Your task to perform on an android device: Open ESPN.com Image 0: 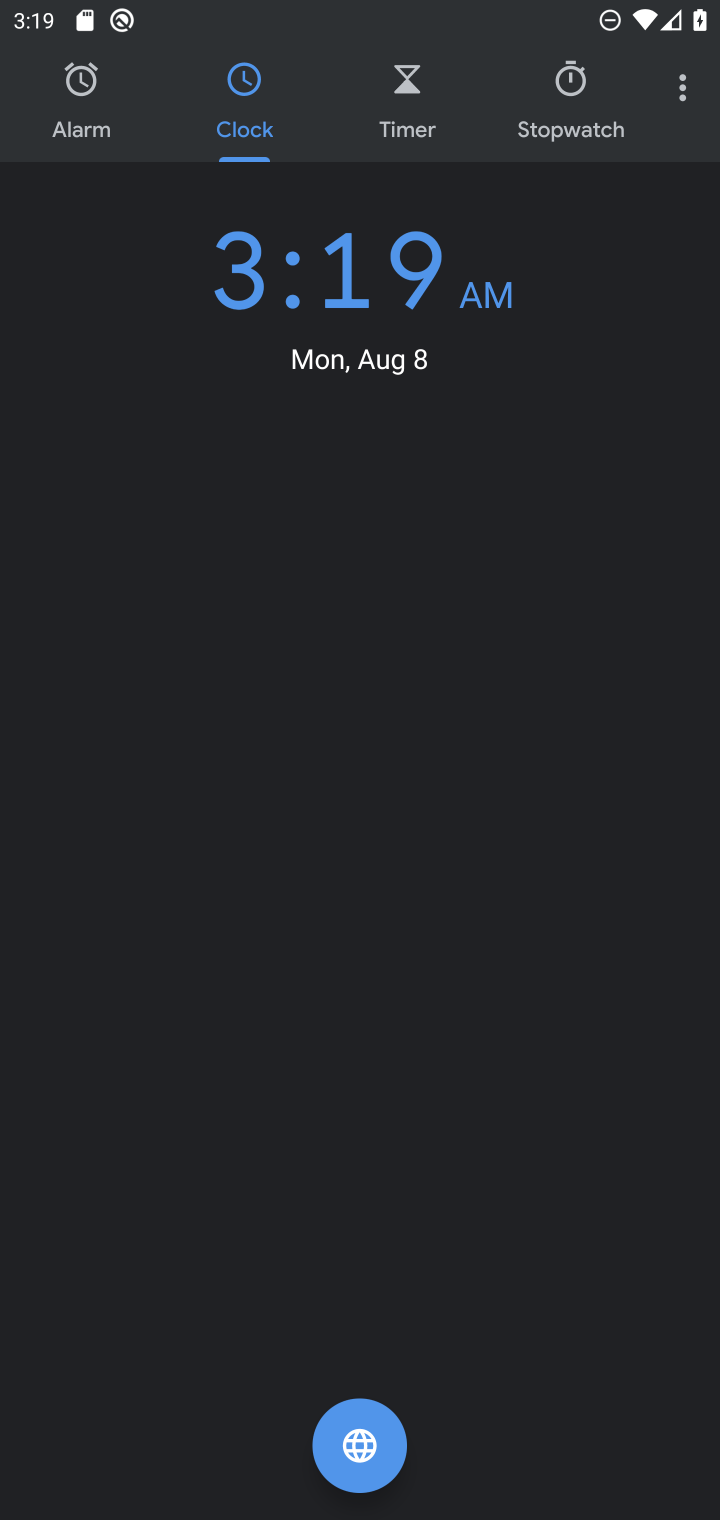
Step 0: press home button
Your task to perform on an android device: Open ESPN.com Image 1: 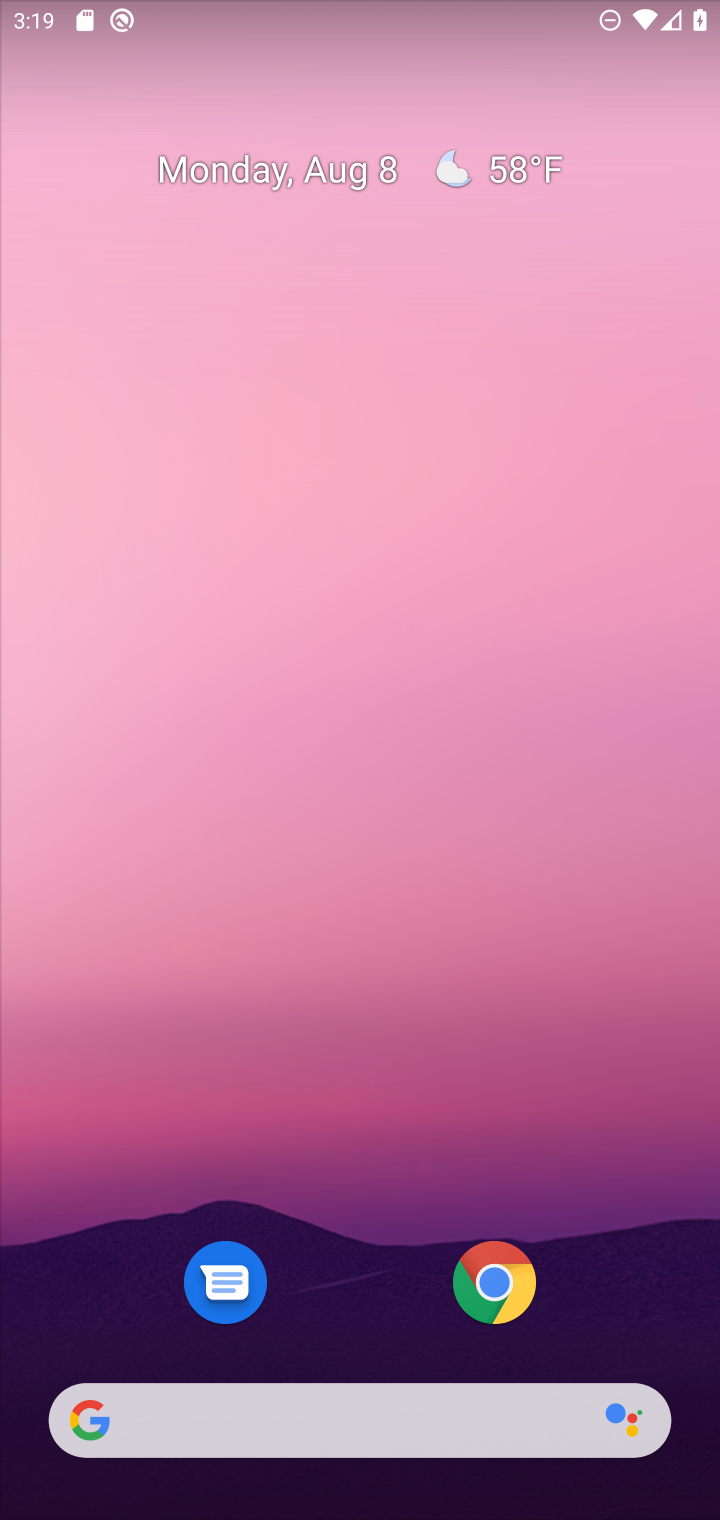
Step 1: drag from (446, 1023) to (710, 231)
Your task to perform on an android device: Open ESPN.com Image 2: 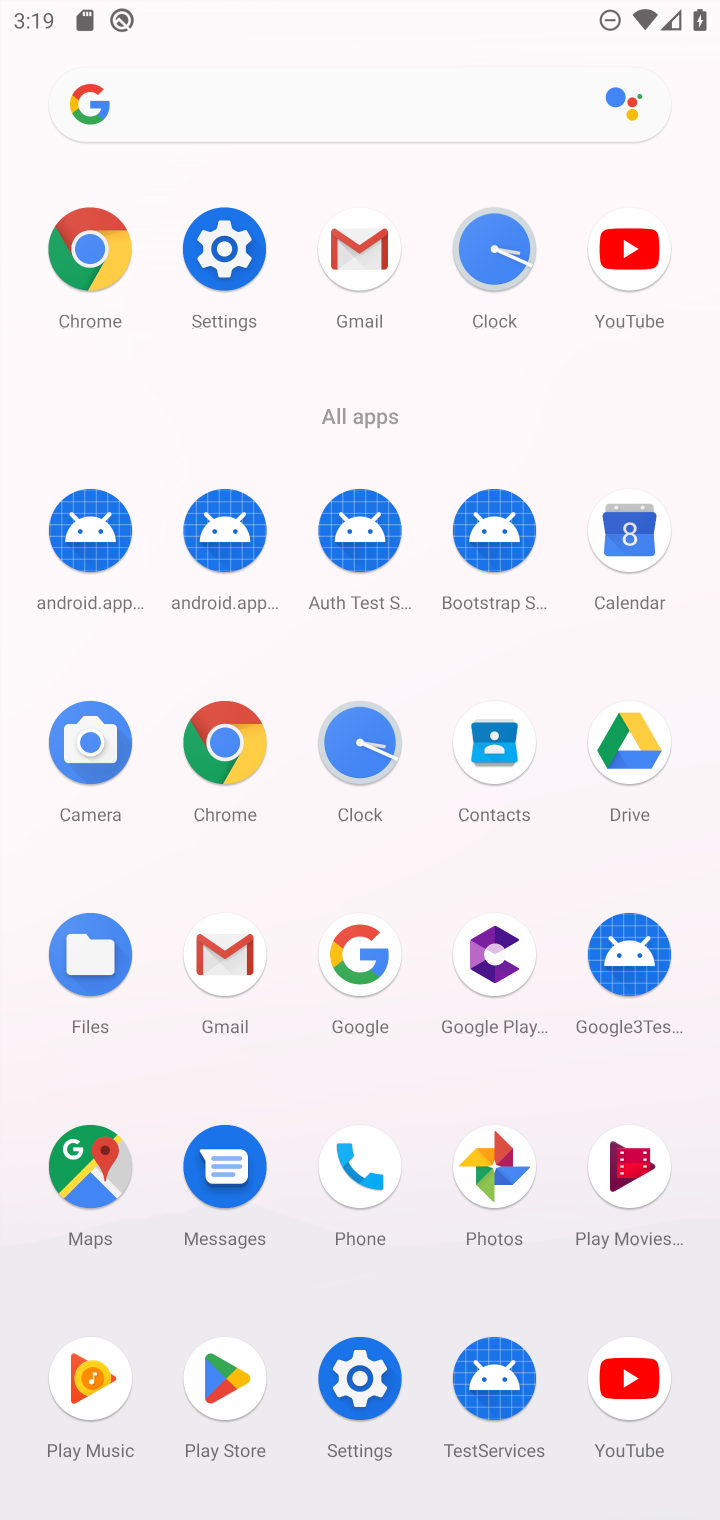
Step 2: click (224, 740)
Your task to perform on an android device: Open ESPN.com Image 3: 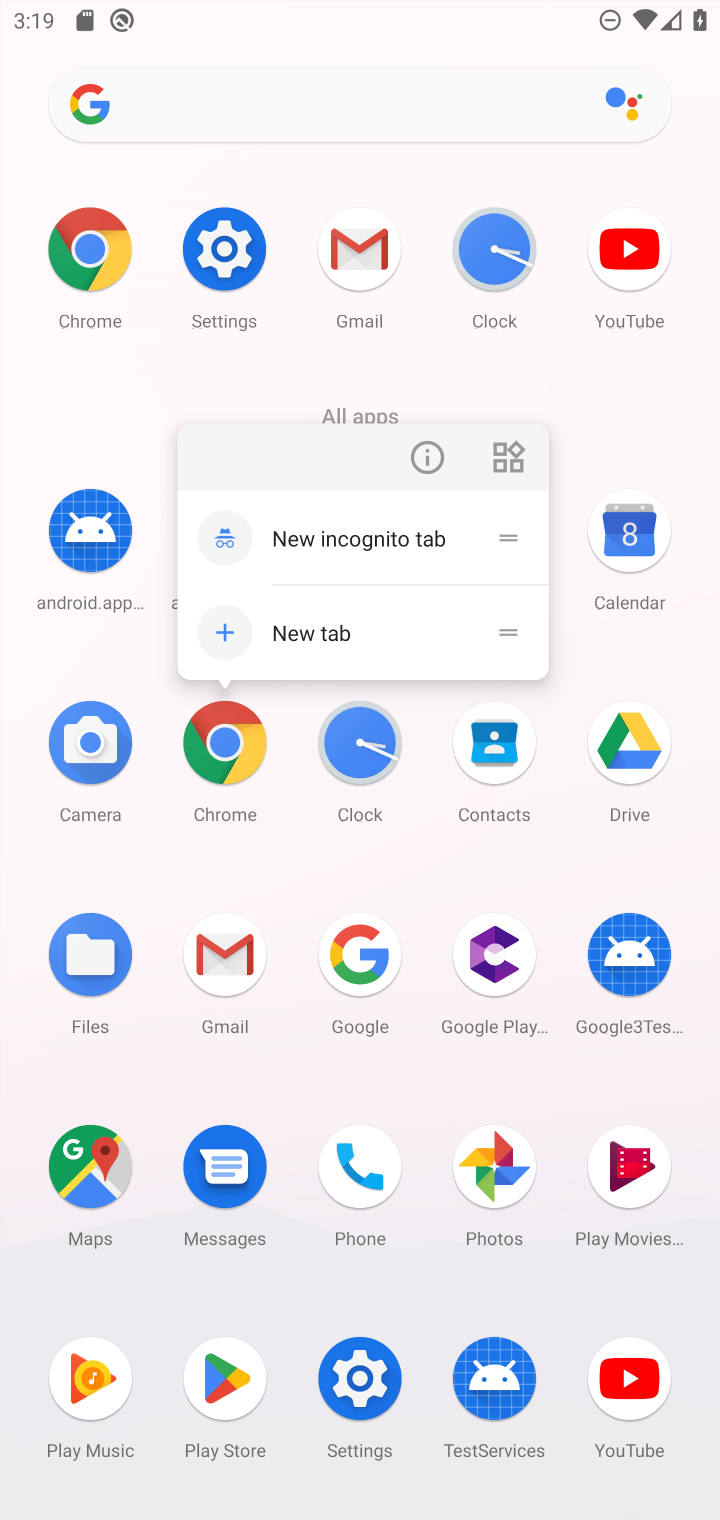
Step 3: click (221, 729)
Your task to perform on an android device: Open ESPN.com Image 4: 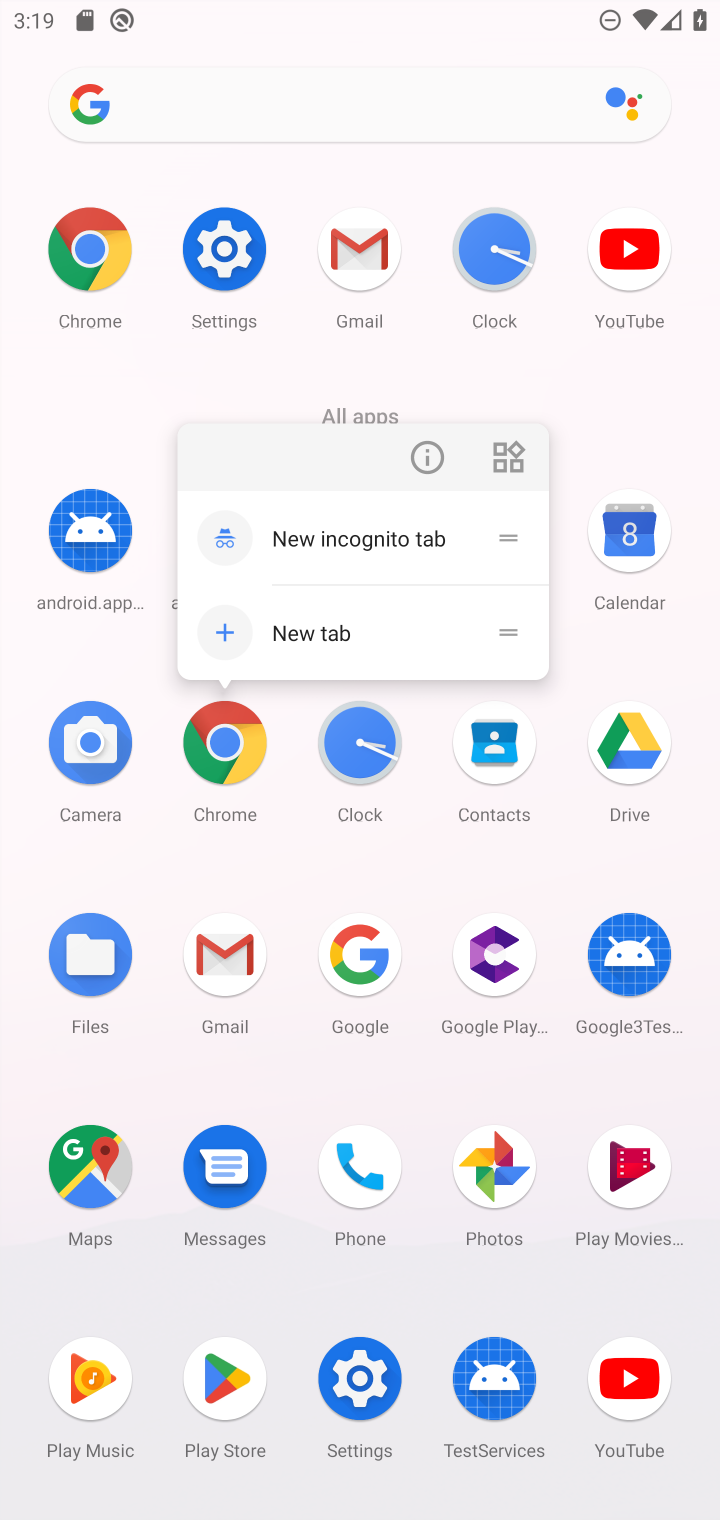
Step 4: click (221, 729)
Your task to perform on an android device: Open ESPN.com Image 5: 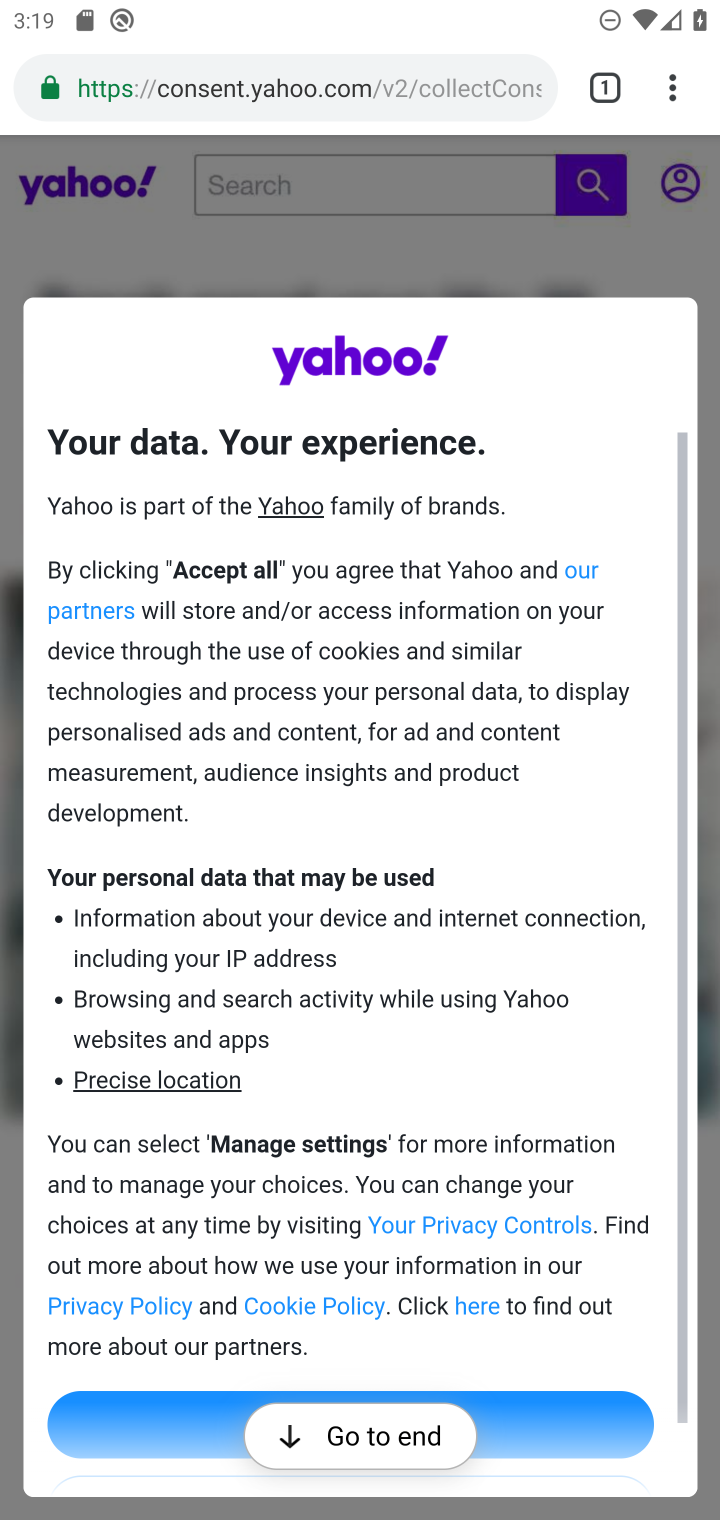
Step 5: click (302, 104)
Your task to perform on an android device: Open ESPN.com Image 6: 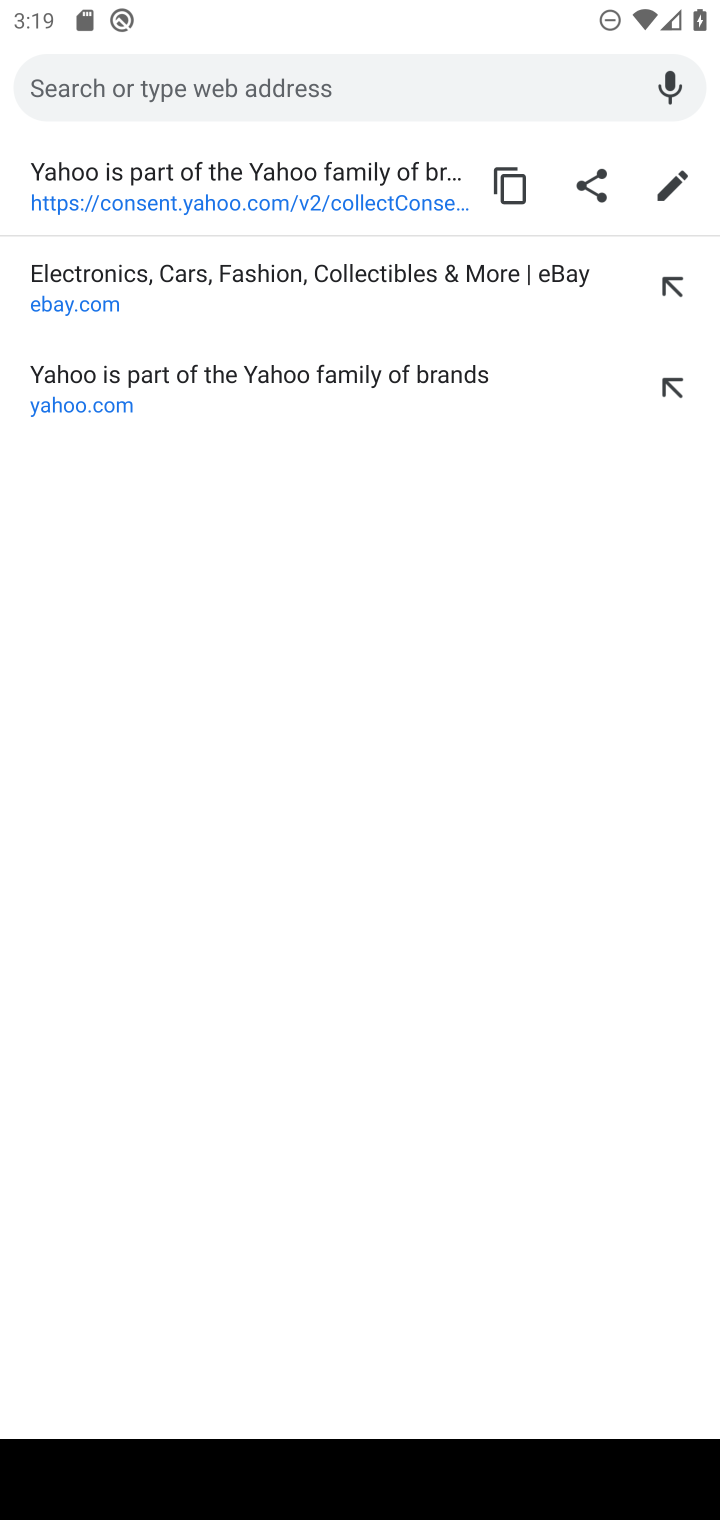
Step 6: type "espn.com"
Your task to perform on an android device: Open ESPN.com Image 7: 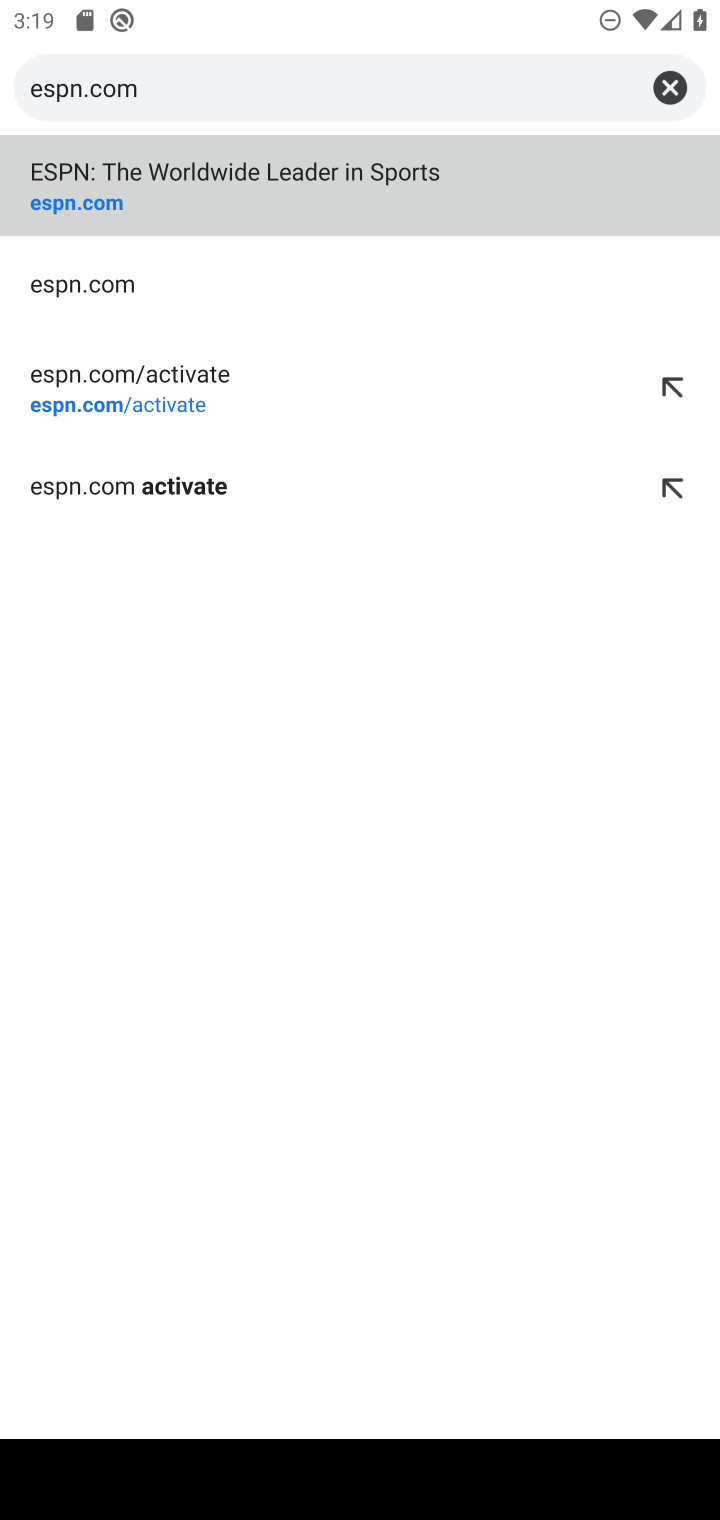
Step 7: click (184, 187)
Your task to perform on an android device: Open ESPN.com Image 8: 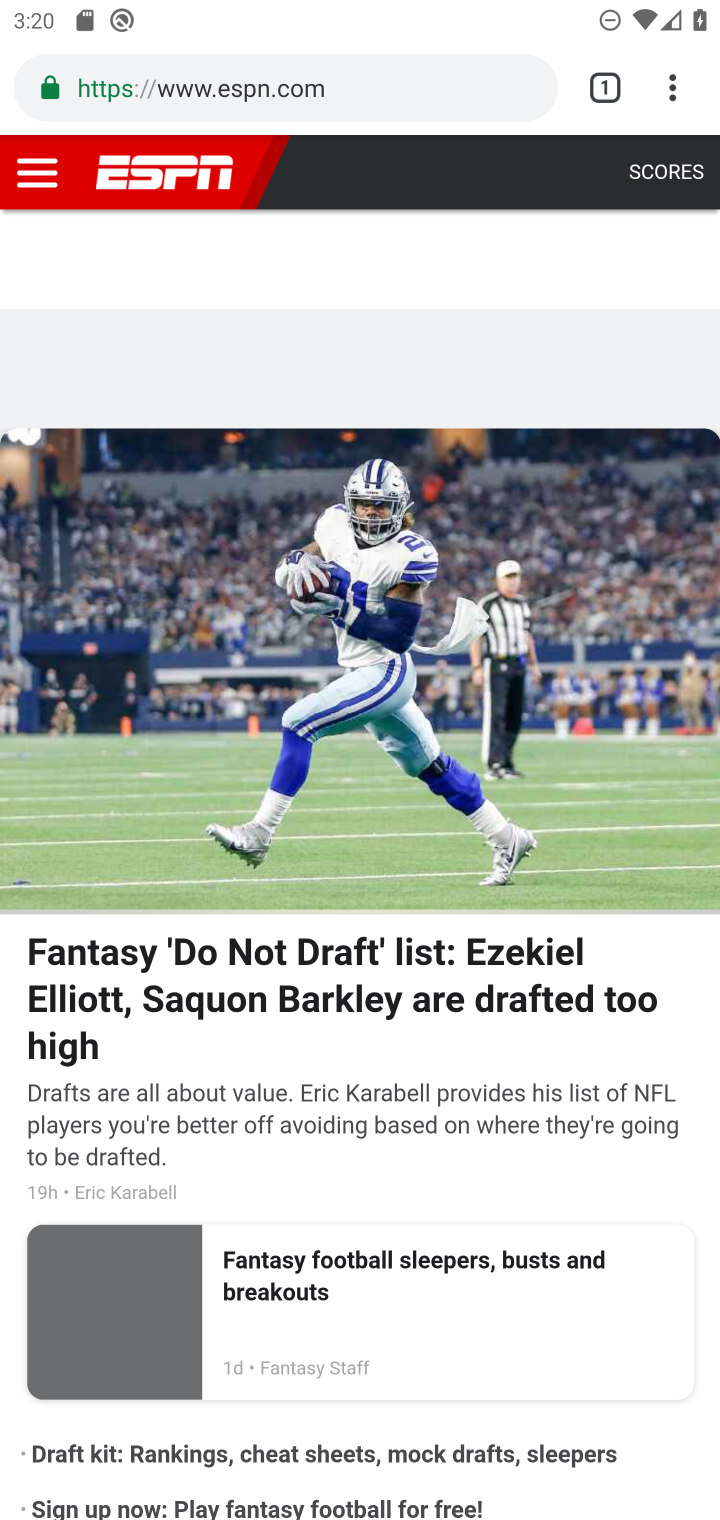
Step 8: task complete